Your task to perform on an android device: Add "logitech g502" to the cart on target, then select checkout. Image 0: 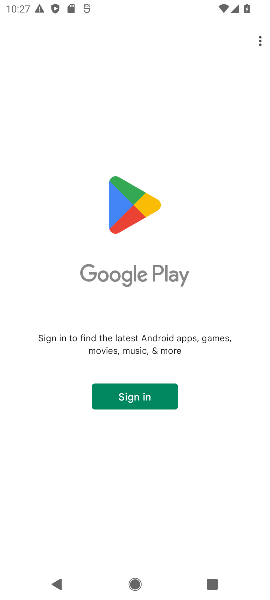
Step 0: press home button
Your task to perform on an android device: Add "logitech g502" to the cart on target, then select checkout. Image 1: 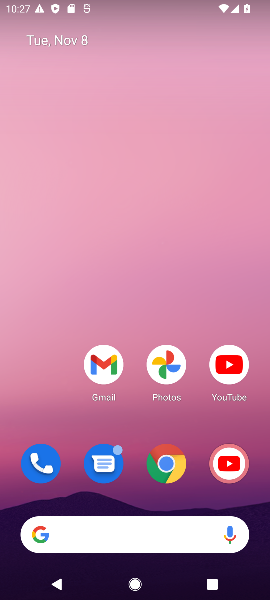
Step 1: click (156, 462)
Your task to perform on an android device: Add "logitech g502" to the cart on target, then select checkout. Image 2: 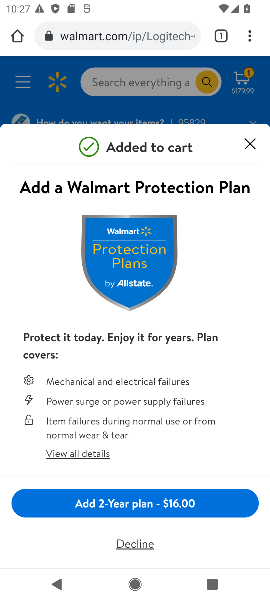
Step 2: click (158, 39)
Your task to perform on an android device: Add "logitech g502" to the cart on target, then select checkout. Image 3: 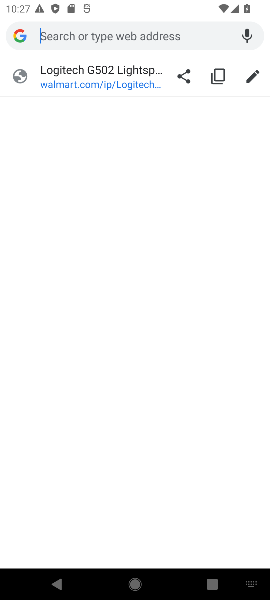
Step 3: type "target"
Your task to perform on an android device: Add "logitech g502" to the cart on target, then select checkout. Image 4: 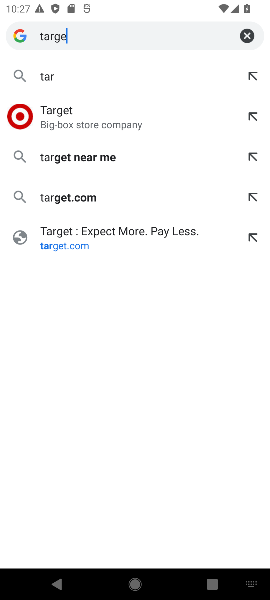
Step 4: press enter
Your task to perform on an android device: Add "logitech g502" to the cart on target, then select checkout. Image 5: 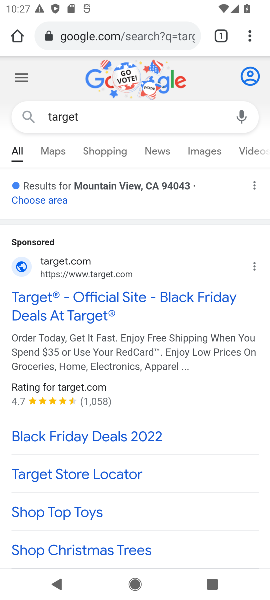
Step 5: click (89, 271)
Your task to perform on an android device: Add "logitech g502" to the cart on target, then select checkout. Image 6: 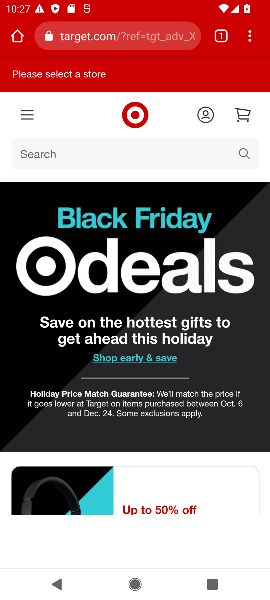
Step 6: click (240, 151)
Your task to perform on an android device: Add "logitech g502" to the cart on target, then select checkout. Image 7: 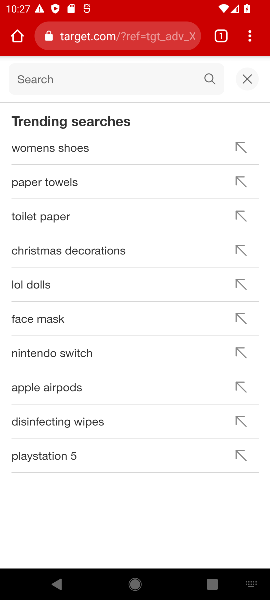
Step 7: type "logitech g502"
Your task to perform on an android device: Add "logitech g502" to the cart on target, then select checkout. Image 8: 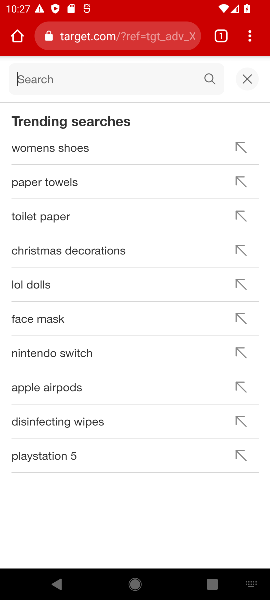
Step 8: press enter
Your task to perform on an android device: Add "logitech g502" to the cart on target, then select checkout. Image 9: 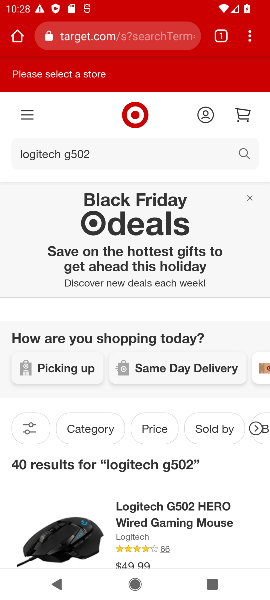
Step 9: click (66, 528)
Your task to perform on an android device: Add "logitech g502" to the cart on target, then select checkout. Image 10: 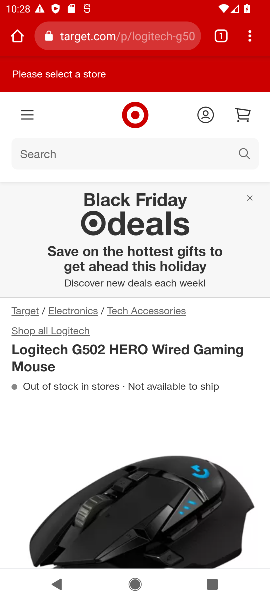
Step 10: drag from (135, 449) to (203, 176)
Your task to perform on an android device: Add "logitech g502" to the cart on target, then select checkout. Image 11: 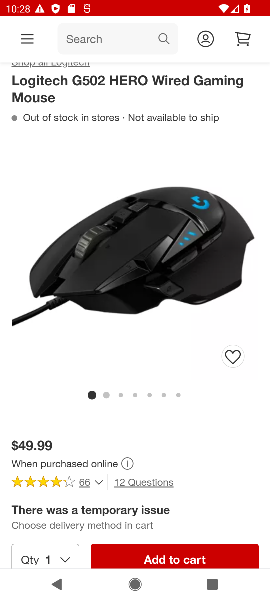
Step 11: click (194, 557)
Your task to perform on an android device: Add "logitech g502" to the cart on target, then select checkout. Image 12: 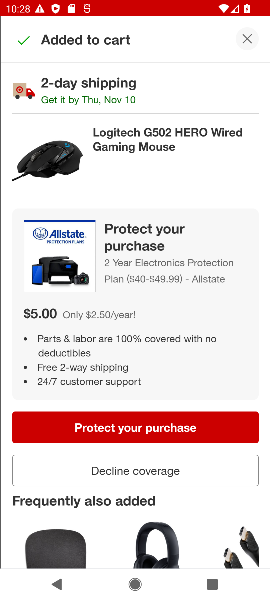
Step 12: click (245, 37)
Your task to perform on an android device: Add "logitech g502" to the cart on target, then select checkout. Image 13: 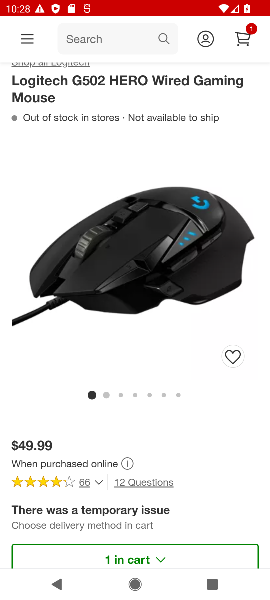
Step 13: click (244, 41)
Your task to perform on an android device: Add "logitech g502" to the cart on target, then select checkout. Image 14: 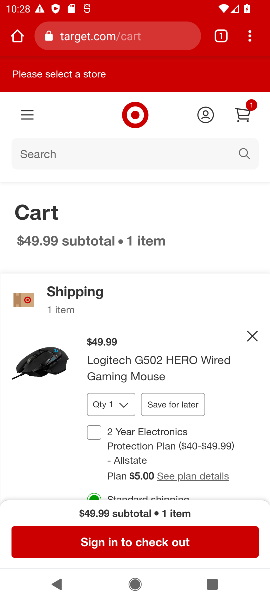
Step 14: click (193, 541)
Your task to perform on an android device: Add "logitech g502" to the cart on target, then select checkout. Image 15: 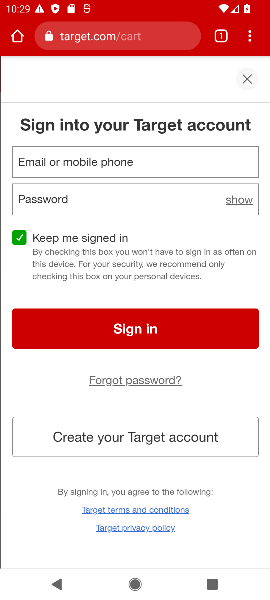
Step 15: task complete